Your task to perform on an android device: check out phone information Image 0: 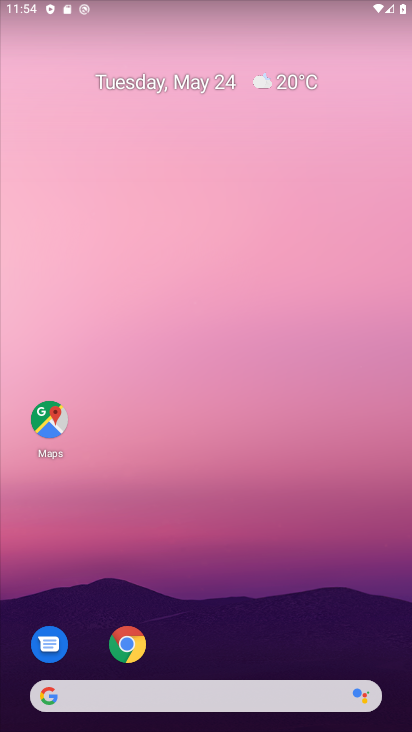
Step 0: drag from (186, 313) to (121, 53)
Your task to perform on an android device: check out phone information Image 1: 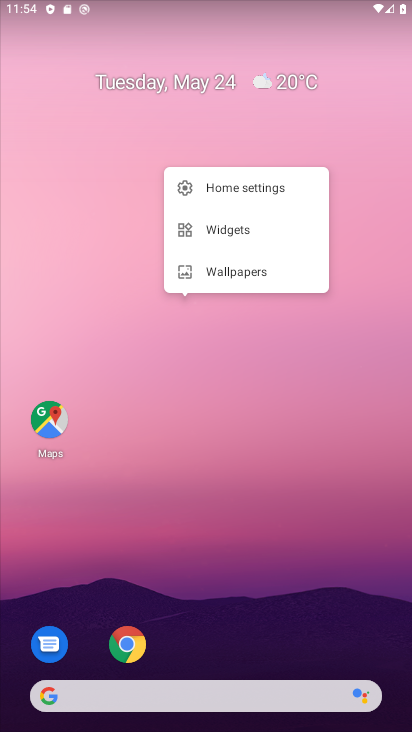
Step 1: drag from (224, 588) to (161, 0)
Your task to perform on an android device: check out phone information Image 2: 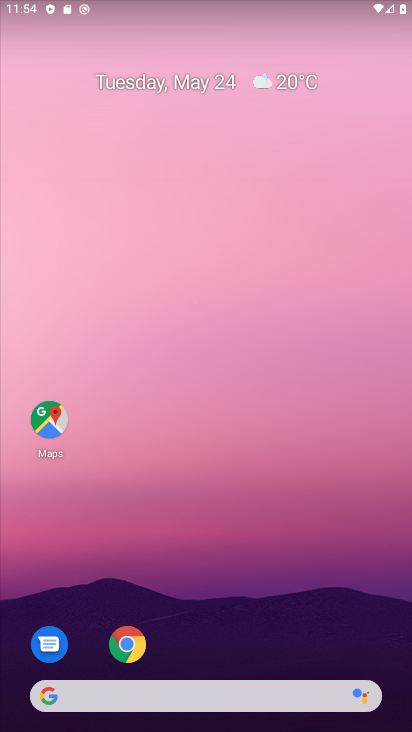
Step 2: drag from (200, 535) to (239, 682)
Your task to perform on an android device: check out phone information Image 3: 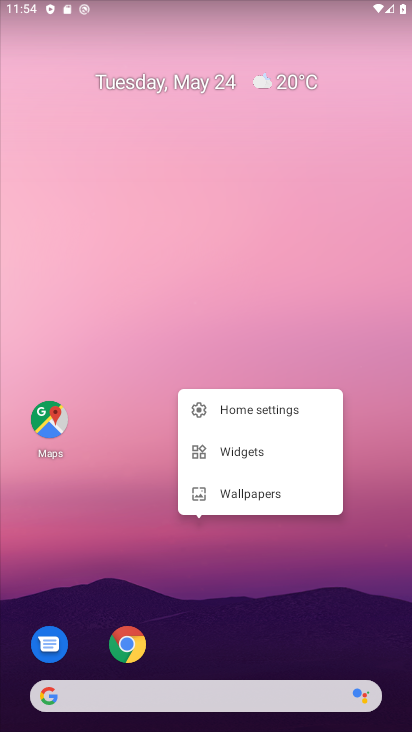
Step 3: click (376, 546)
Your task to perform on an android device: check out phone information Image 4: 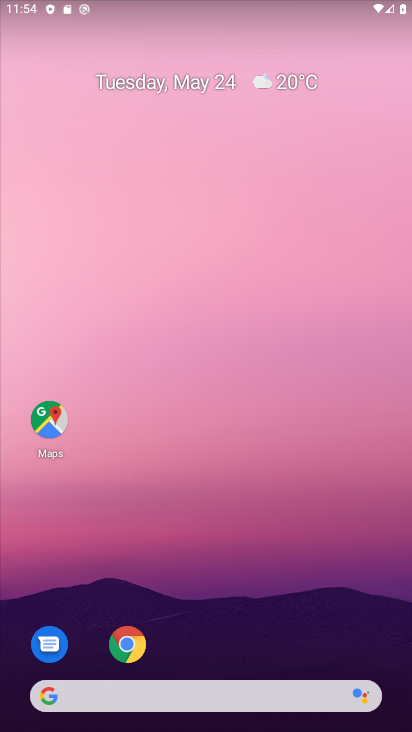
Step 4: drag from (374, 612) to (278, 72)
Your task to perform on an android device: check out phone information Image 5: 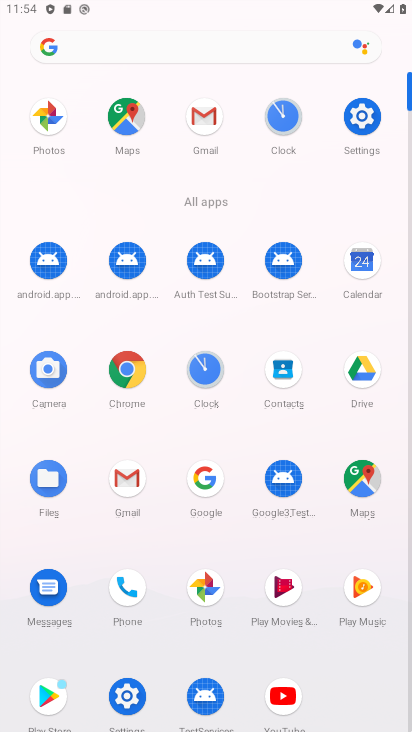
Step 5: click (127, 601)
Your task to perform on an android device: check out phone information Image 6: 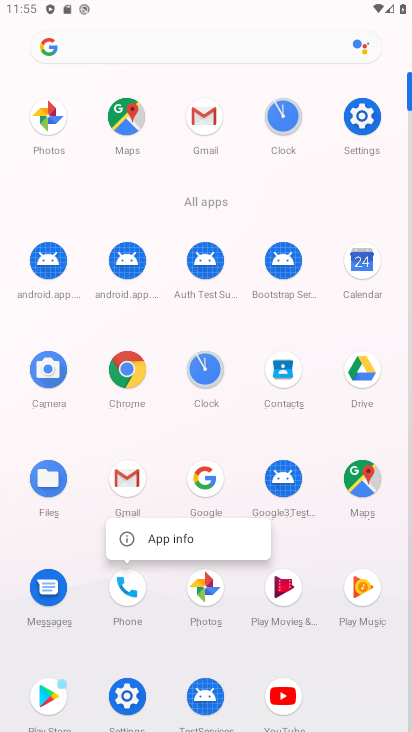
Step 6: click (171, 535)
Your task to perform on an android device: check out phone information Image 7: 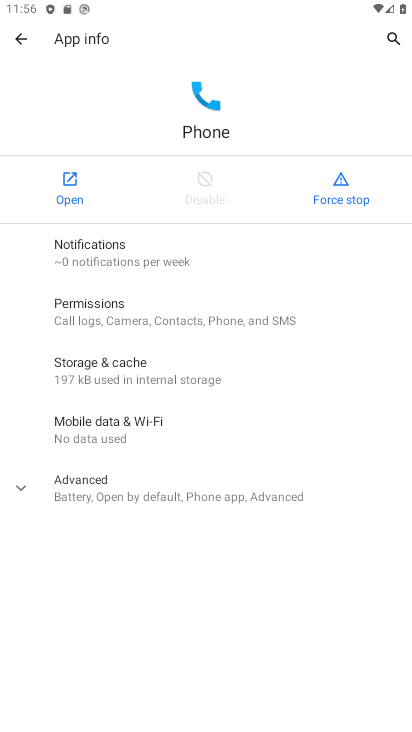
Step 7: task complete